Your task to perform on an android device: Add macbook pro 13 inch to the cart on costco, then select checkout. Image 0: 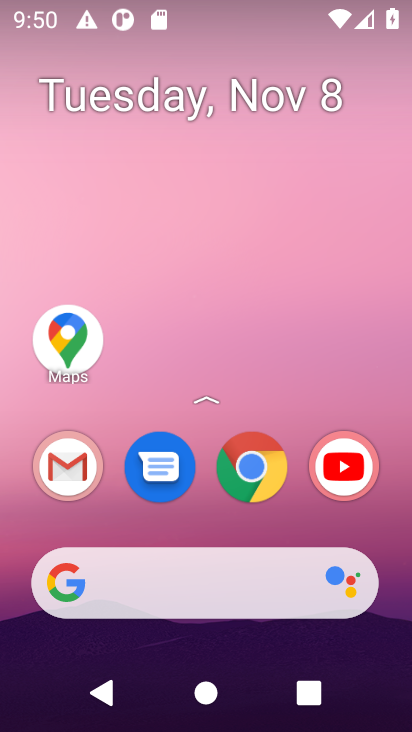
Step 0: click (215, 591)
Your task to perform on an android device: Add macbook pro 13 inch to the cart on costco, then select checkout. Image 1: 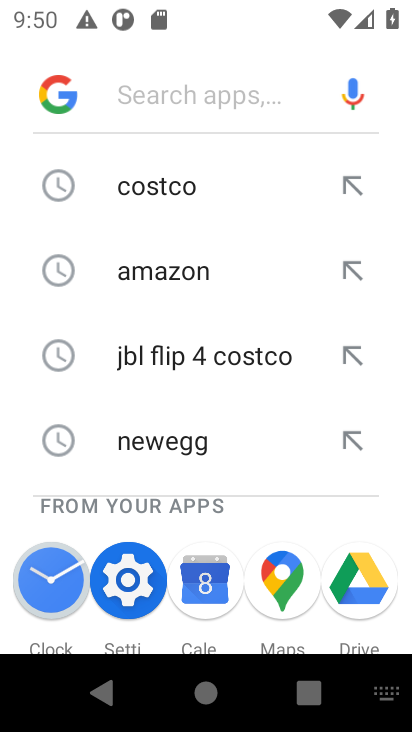
Step 1: click (124, 180)
Your task to perform on an android device: Add macbook pro 13 inch to the cart on costco, then select checkout. Image 2: 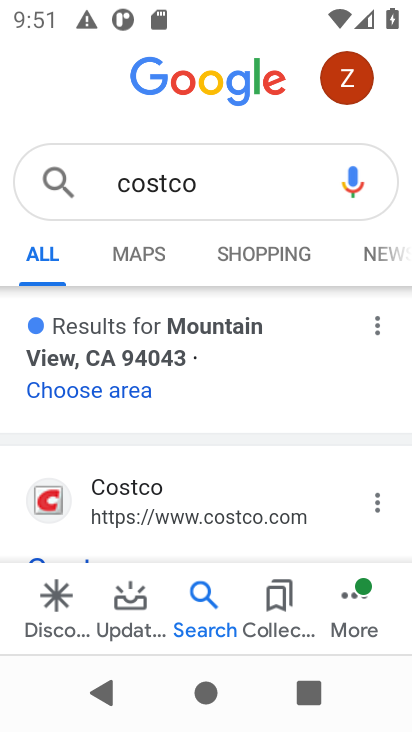
Step 2: click (177, 479)
Your task to perform on an android device: Add macbook pro 13 inch to the cart on costco, then select checkout. Image 3: 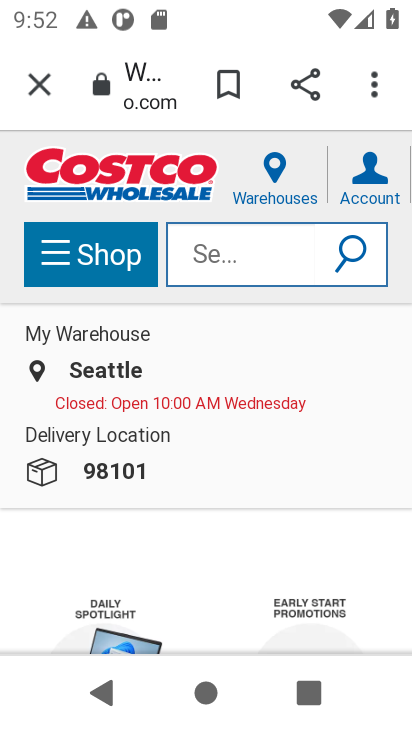
Step 3: task complete